Your task to perform on an android device: Go to Google Image 0: 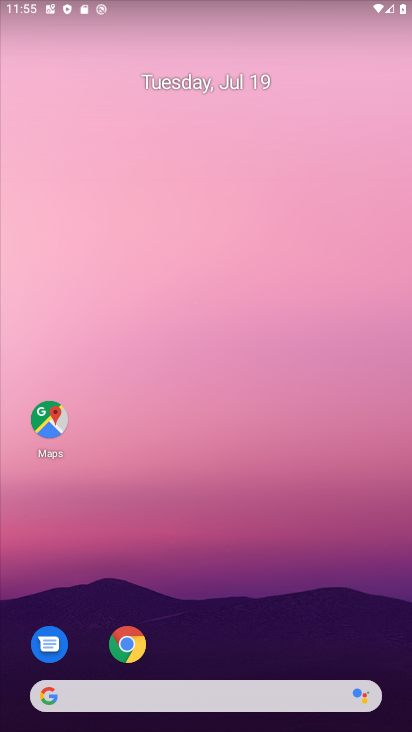
Step 0: drag from (195, 680) to (154, 42)
Your task to perform on an android device: Go to Google Image 1: 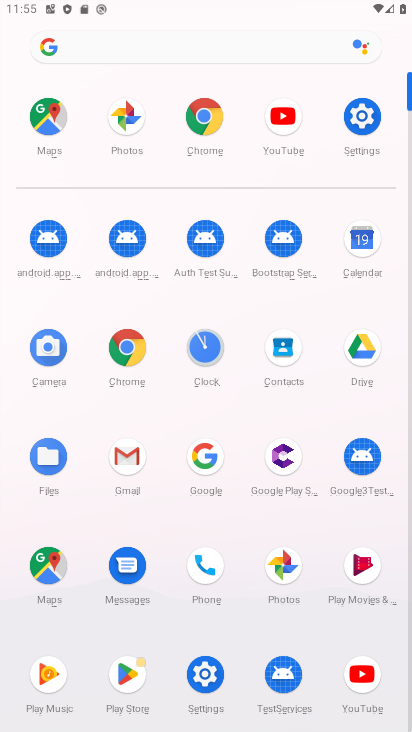
Step 1: click (194, 425)
Your task to perform on an android device: Go to Google Image 2: 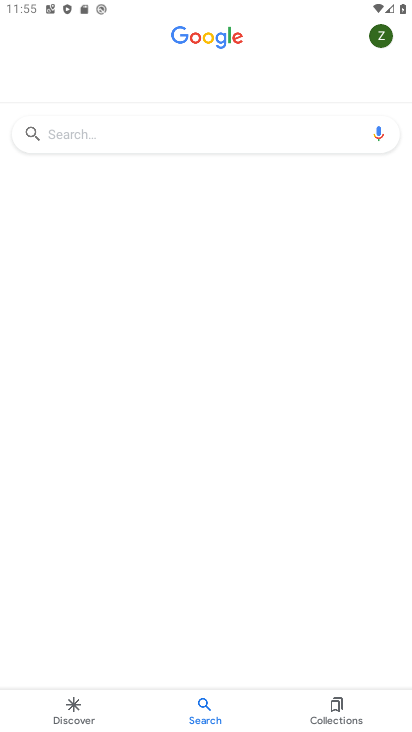
Step 2: task complete